Your task to perform on an android device: Open settings Image 0: 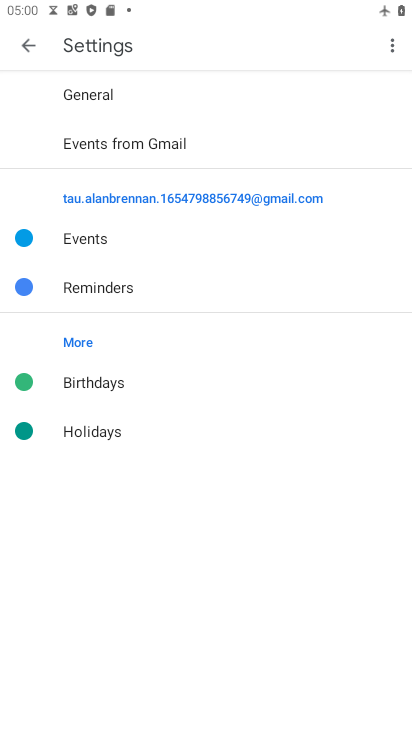
Step 0: press home button
Your task to perform on an android device: Open settings Image 1: 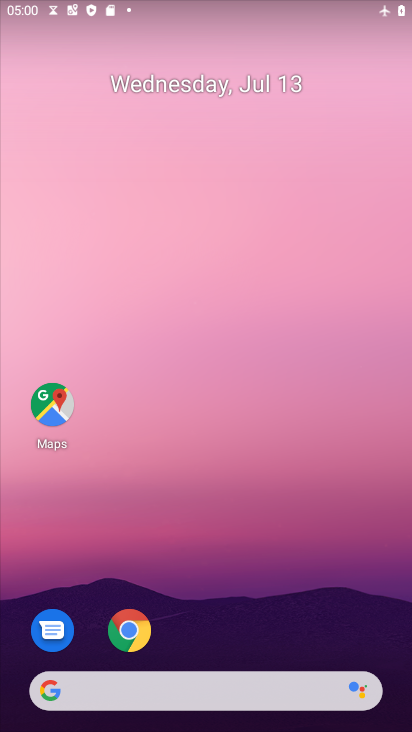
Step 1: drag from (170, 646) to (232, 8)
Your task to perform on an android device: Open settings Image 2: 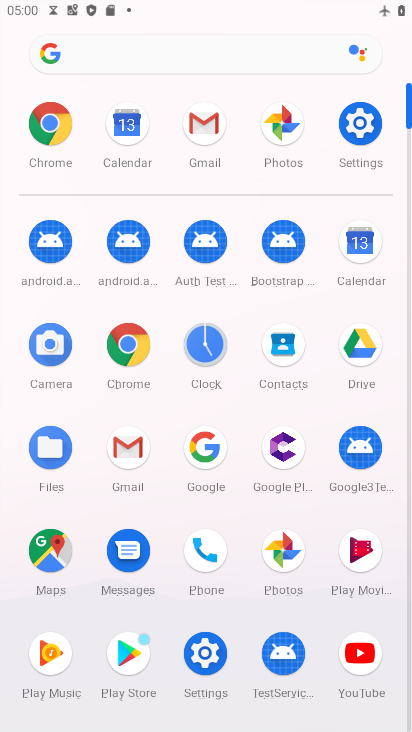
Step 2: click (197, 657)
Your task to perform on an android device: Open settings Image 3: 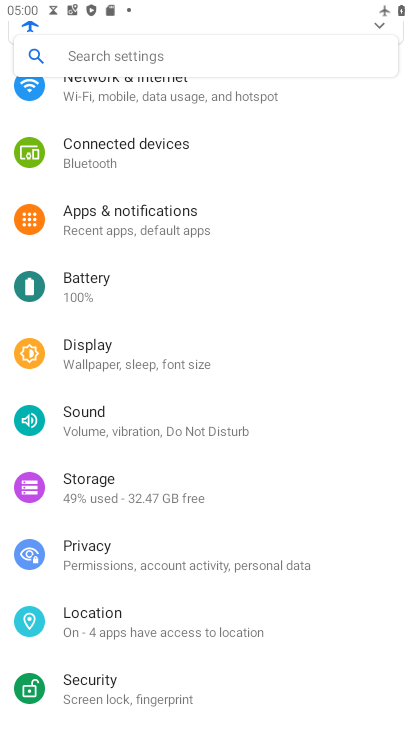
Step 3: task complete